Your task to perform on an android device: open app "Facebook Lite" Image 0: 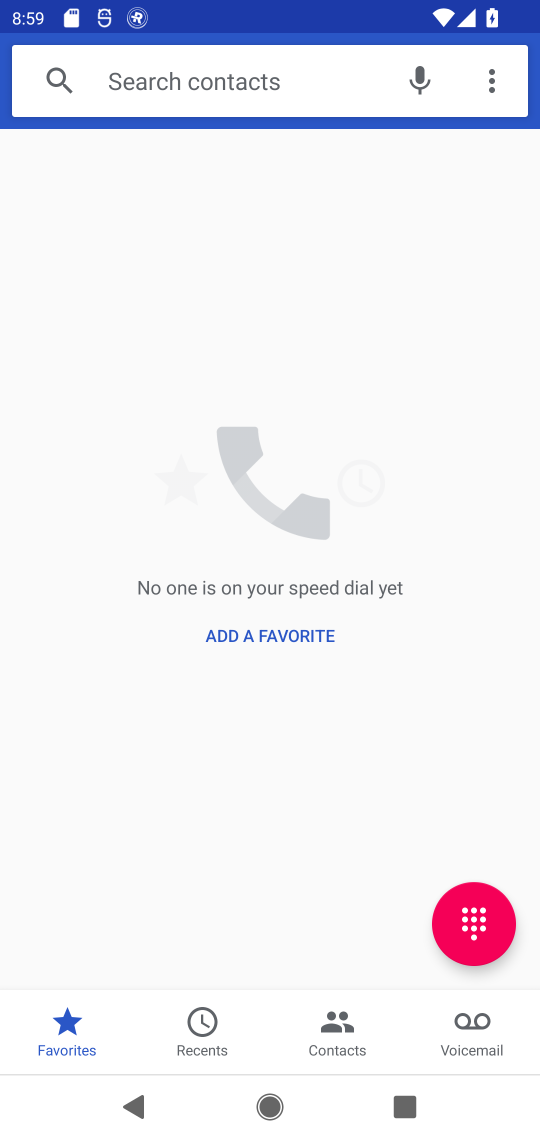
Step 0: press home button
Your task to perform on an android device: open app "Facebook Lite" Image 1: 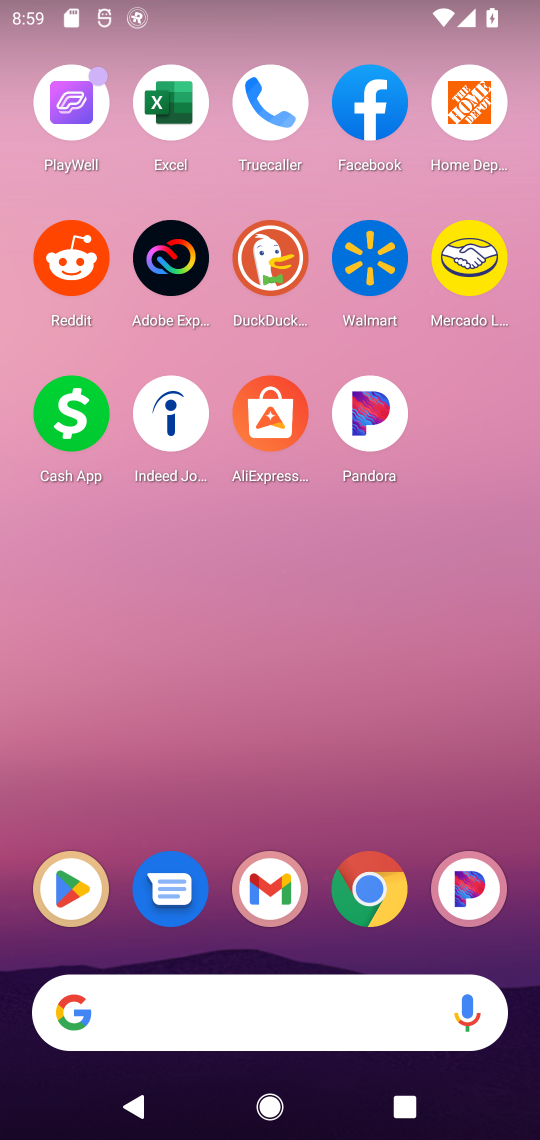
Step 1: click (68, 884)
Your task to perform on an android device: open app "Facebook Lite" Image 2: 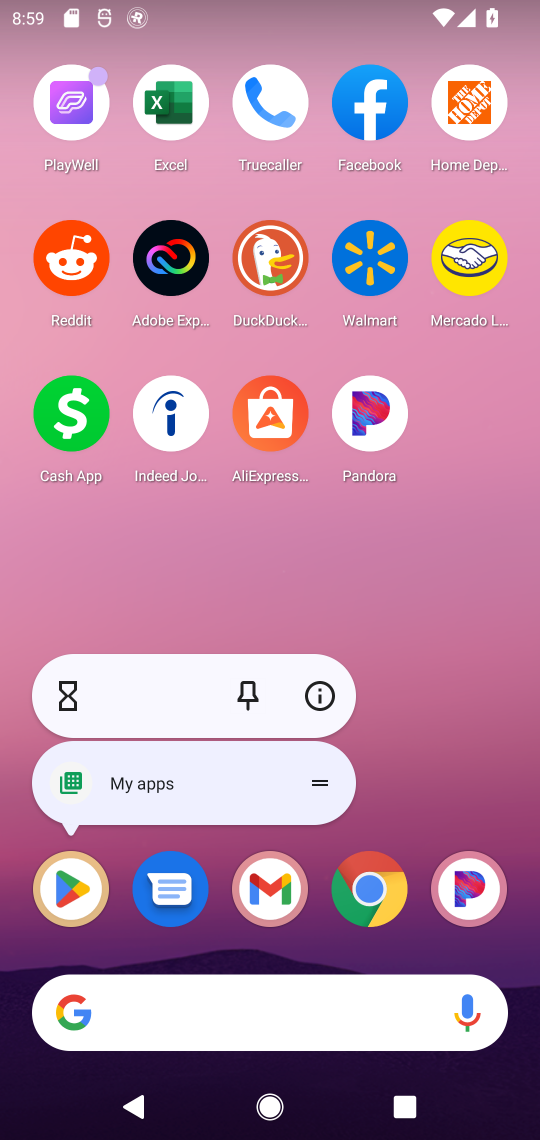
Step 2: click (68, 887)
Your task to perform on an android device: open app "Facebook Lite" Image 3: 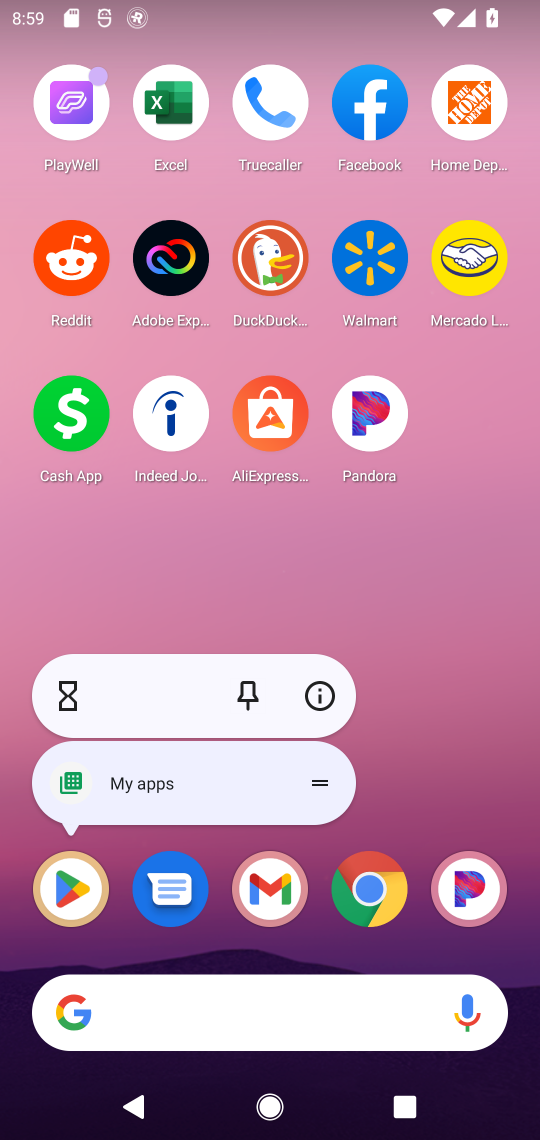
Step 3: click (68, 886)
Your task to perform on an android device: open app "Facebook Lite" Image 4: 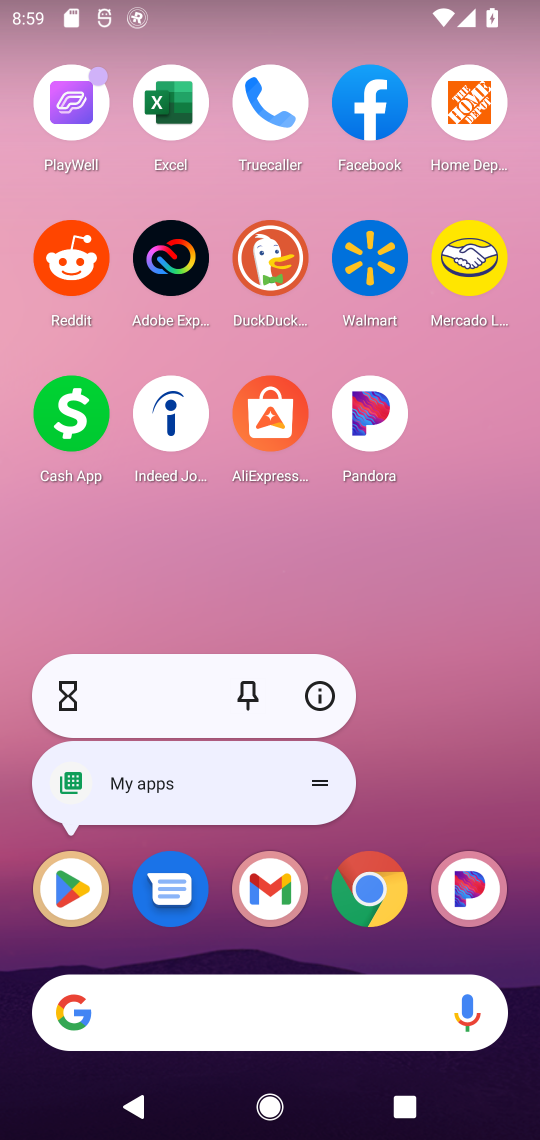
Step 4: click (68, 886)
Your task to perform on an android device: open app "Facebook Lite" Image 5: 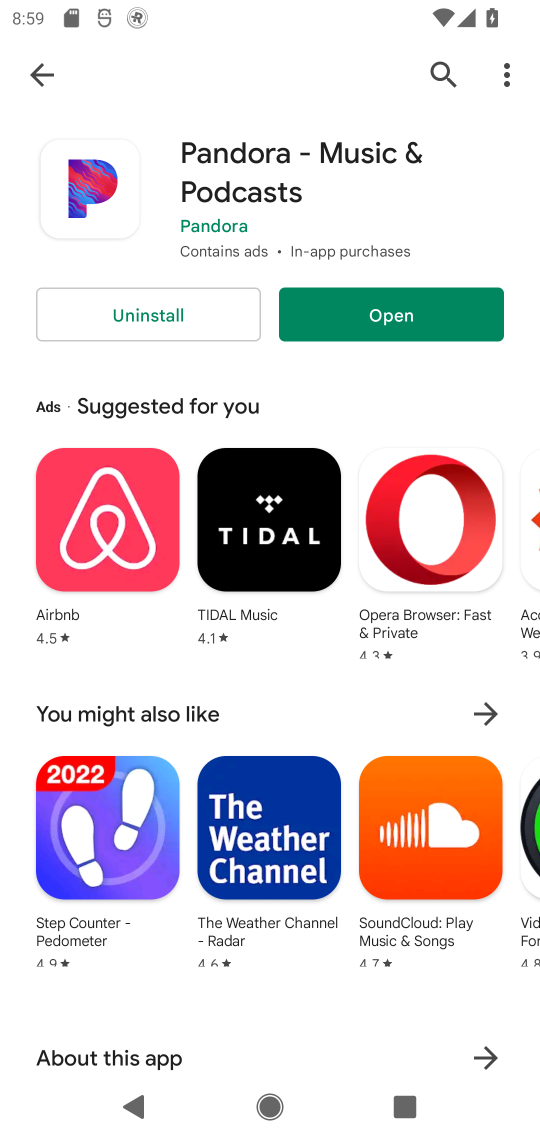
Step 5: click (68, 886)
Your task to perform on an android device: open app "Facebook Lite" Image 6: 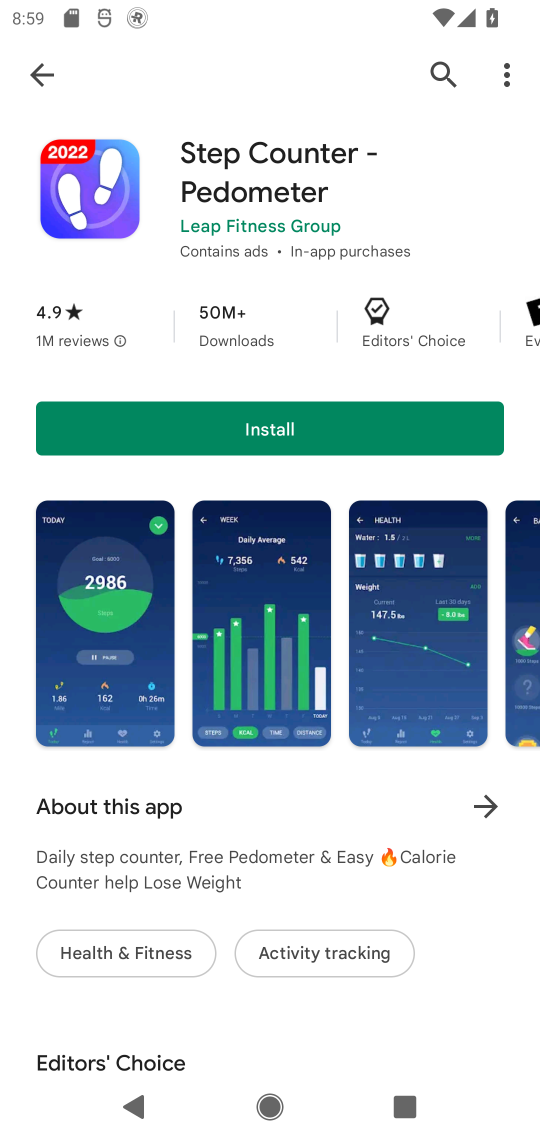
Step 6: click (37, 79)
Your task to perform on an android device: open app "Facebook Lite" Image 7: 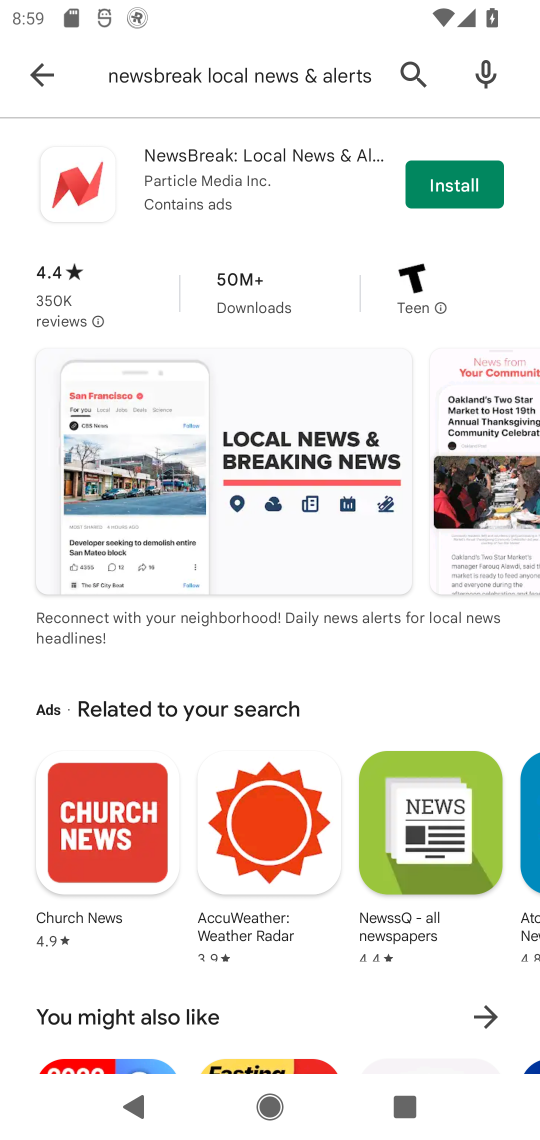
Step 7: click (412, 78)
Your task to perform on an android device: open app "Facebook Lite" Image 8: 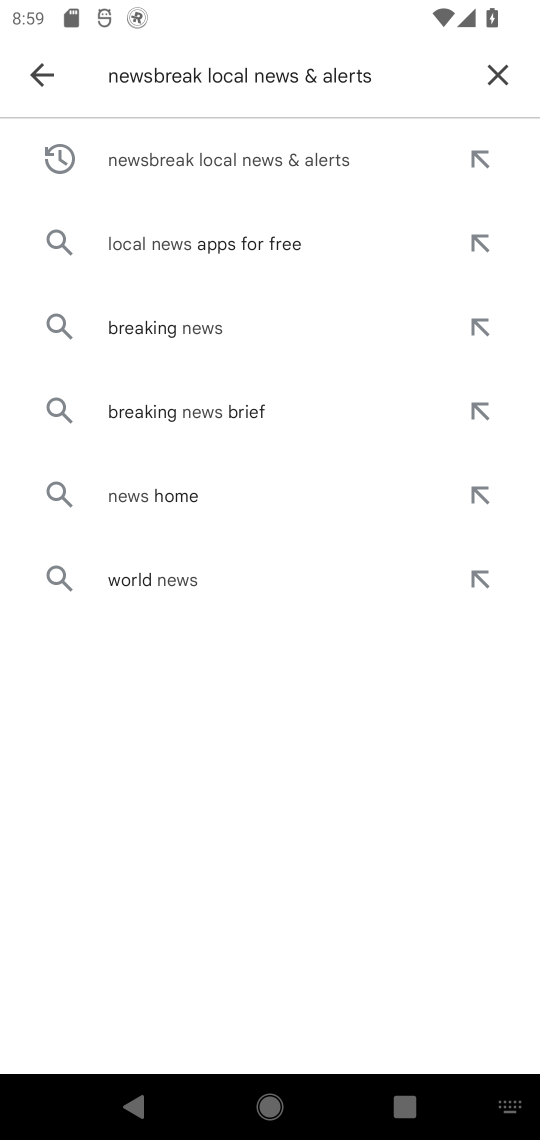
Step 8: click (493, 72)
Your task to perform on an android device: open app "Facebook Lite" Image 9: 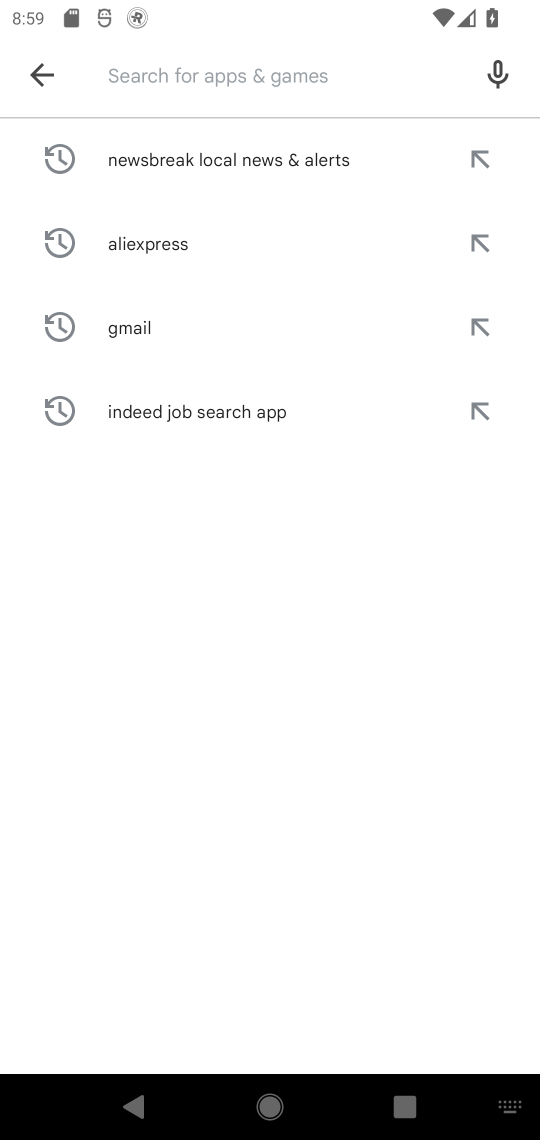
Step 9: type "Facebook Lite"
Your task to perform on an android device: open app "Facebook Lite" Image 10: 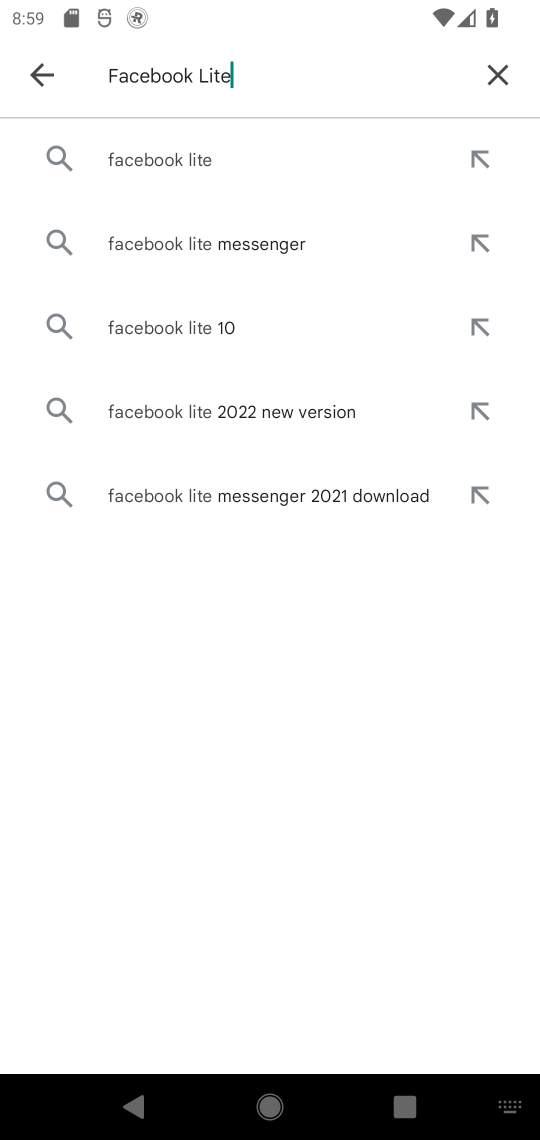
Step 10: click (163, 156)
Your task to perform on an android device: open app "Facebook Lite" Image 11: 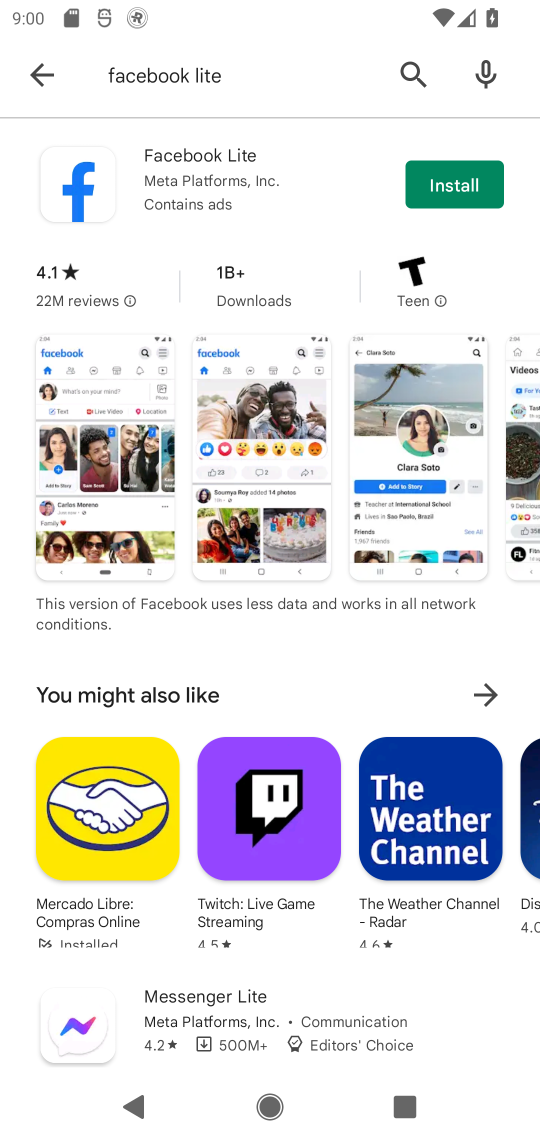
Step 11: task complete